Your task to perform on an android device: Add "bose soundlink" to the cart on bestbuy, then select checkout. Image 0: 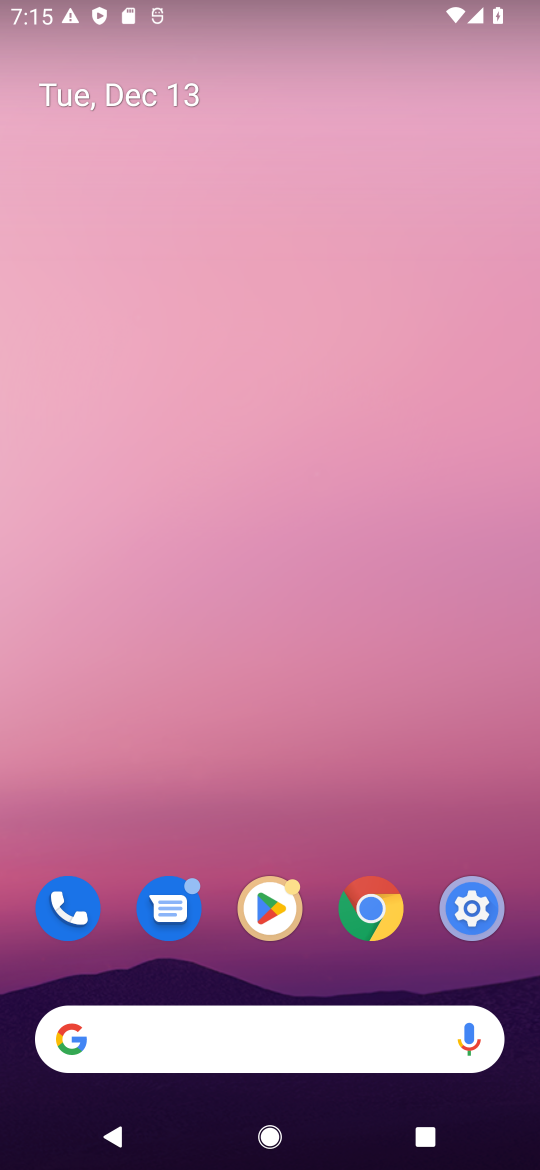
Step 0: press home button
Your task to perform on an android device: Add "bose soundlink" to the cart on bestbuy, then select checkout. Image 1: 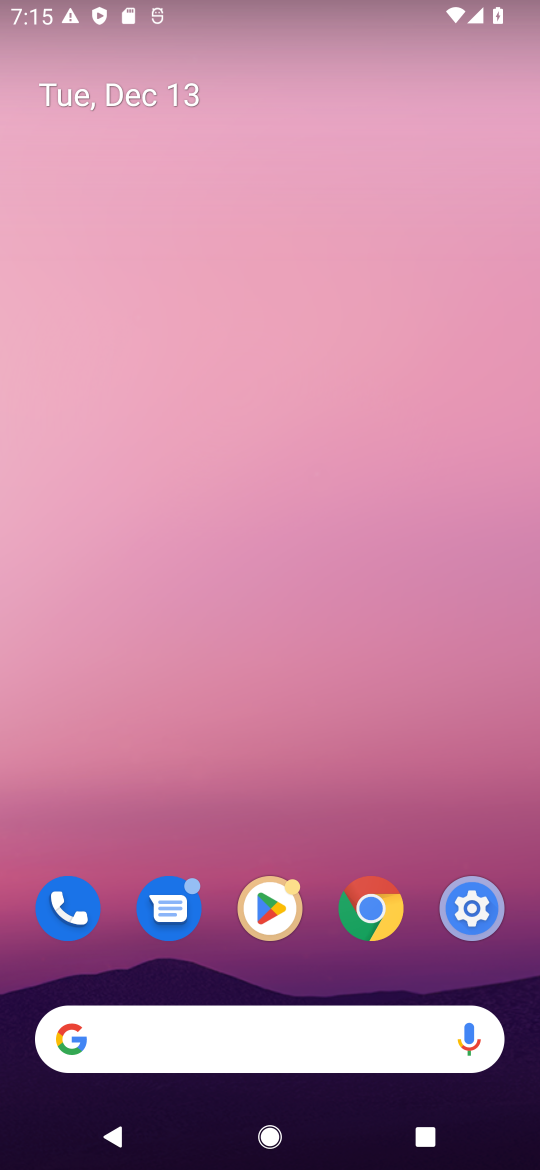
Step 1: click (117, 1031)
Your task to perform on an android device: Add "bose soundlink" to the cart on bestbuy, then select checkout. Image 2: 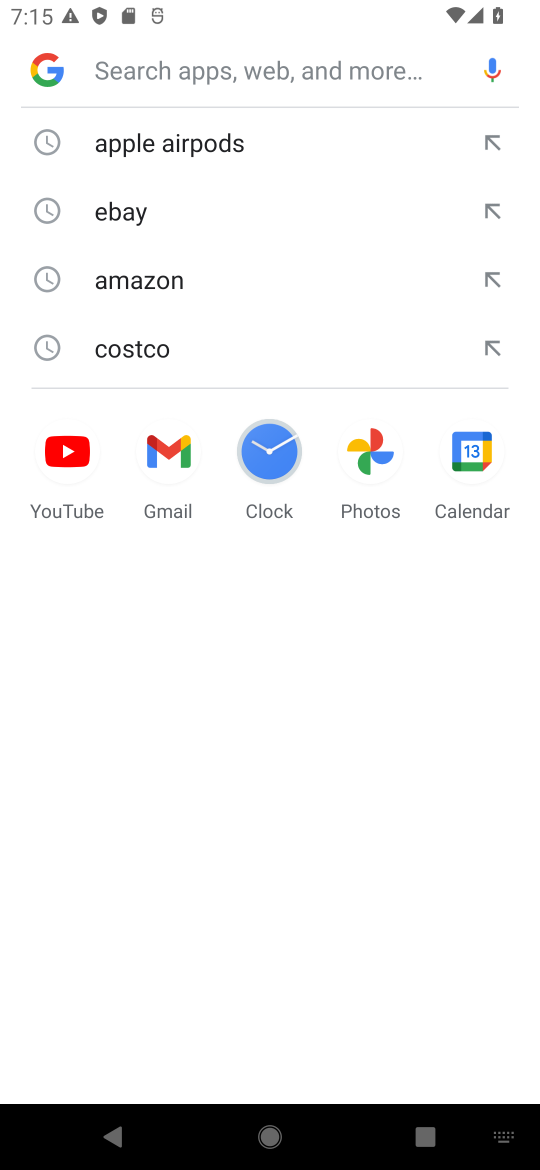
Step 2: type "bestbuy"
Your task to perform on an android device: Add "bose soundlink" to the cart on bestbuy, then select checkout. Image 3: 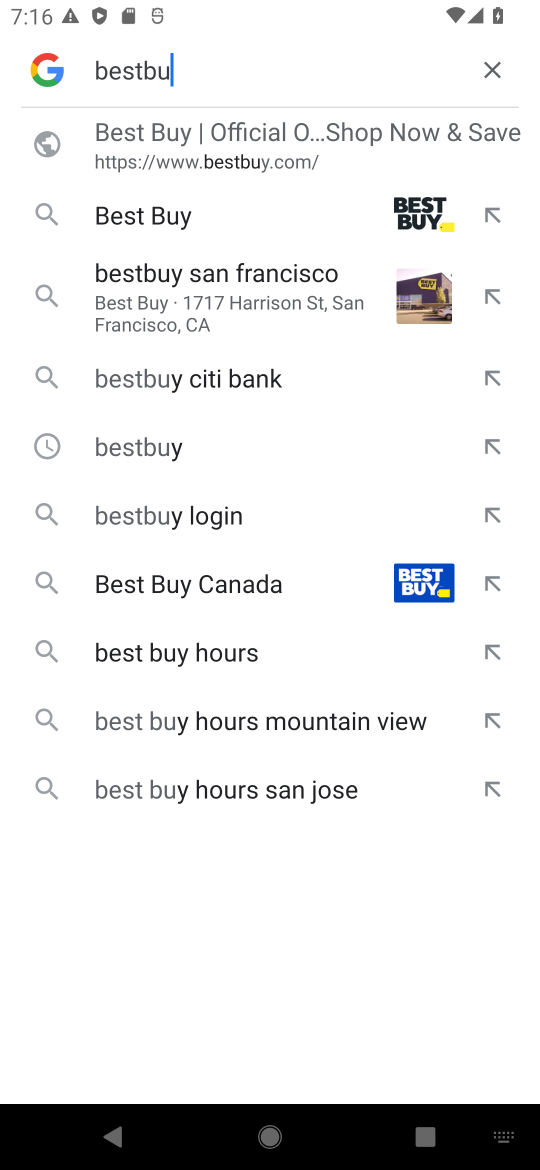
Step 3: press enter
Your task to perform on an android device: Add "bose soundlink" to the cart on bestbuy, then select checkout. Image 4: 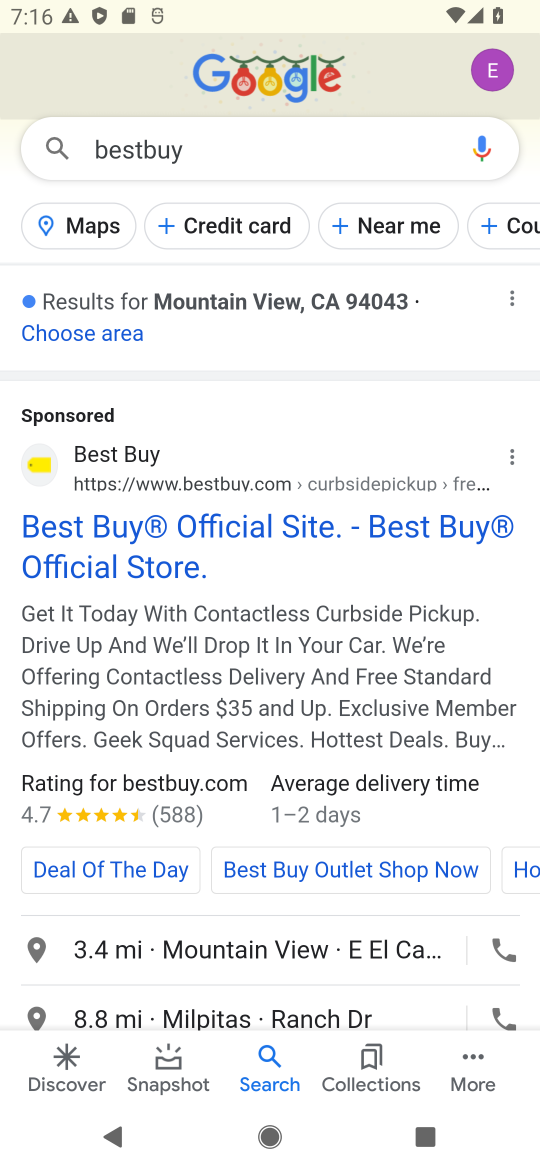
Step 4: click (163, 556)
Your task to perform on an android device: Add "bose soundlink" to the cart on bestbuy, then select checkout. Image 5: 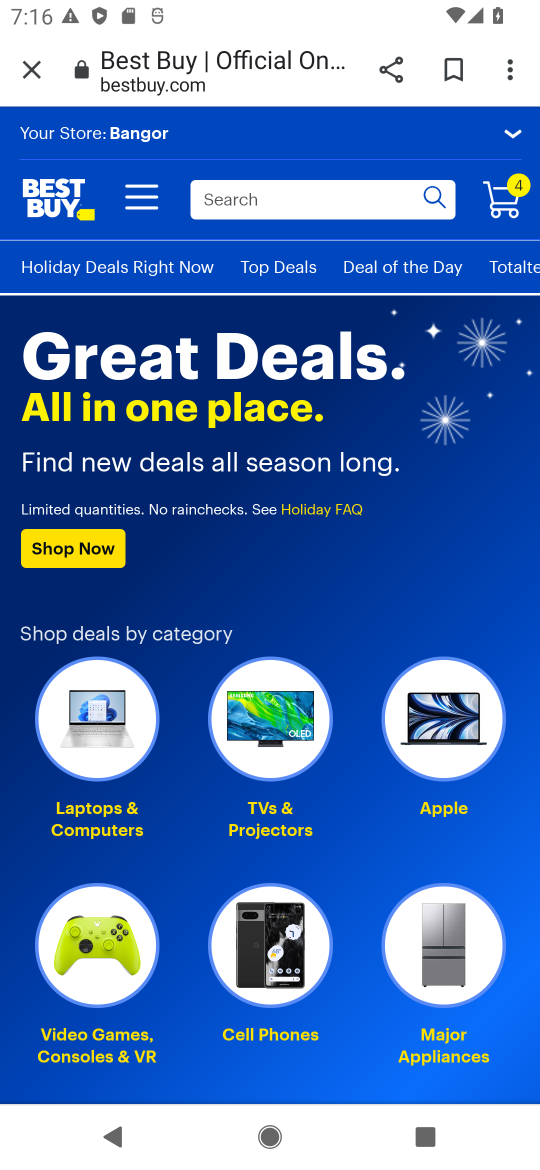
Step 5: click (276, 198)
Your task to perform on an android device: Add "bose soundlink" to the cart on bestbuy, then select checkout. Image 6: 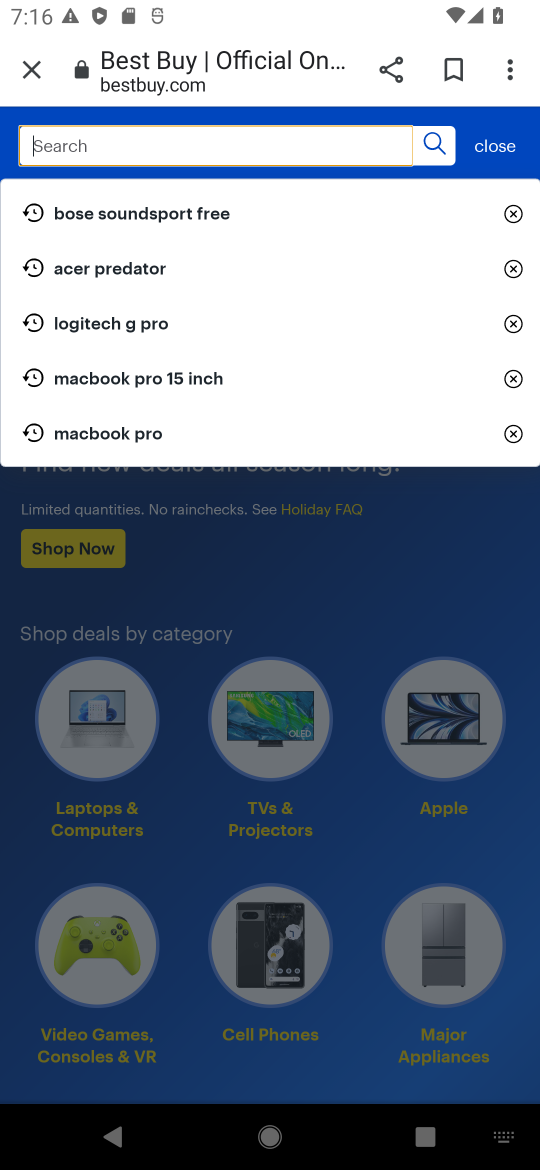
Step 6: type "bose soundlink"
Your task to perform on an android device: Add "bose soundlink" to the cart on bestbuy, then select checkout. Image 7: 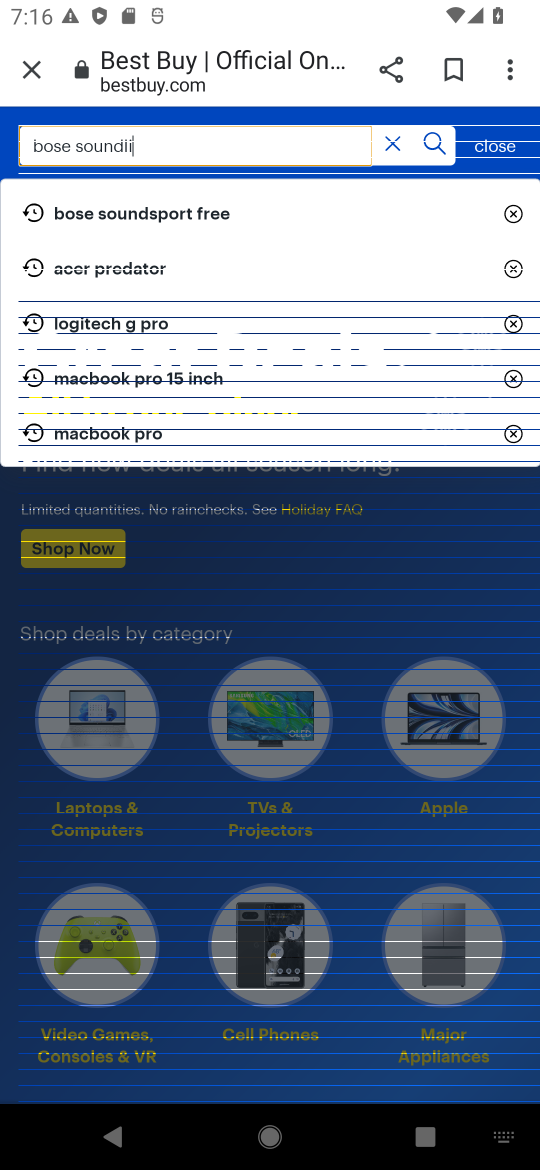
Step 7: press enter
Your task to perform on an android device: Add "bose soundlink" to the cart on bestbuy, then select checkout. Image 8: 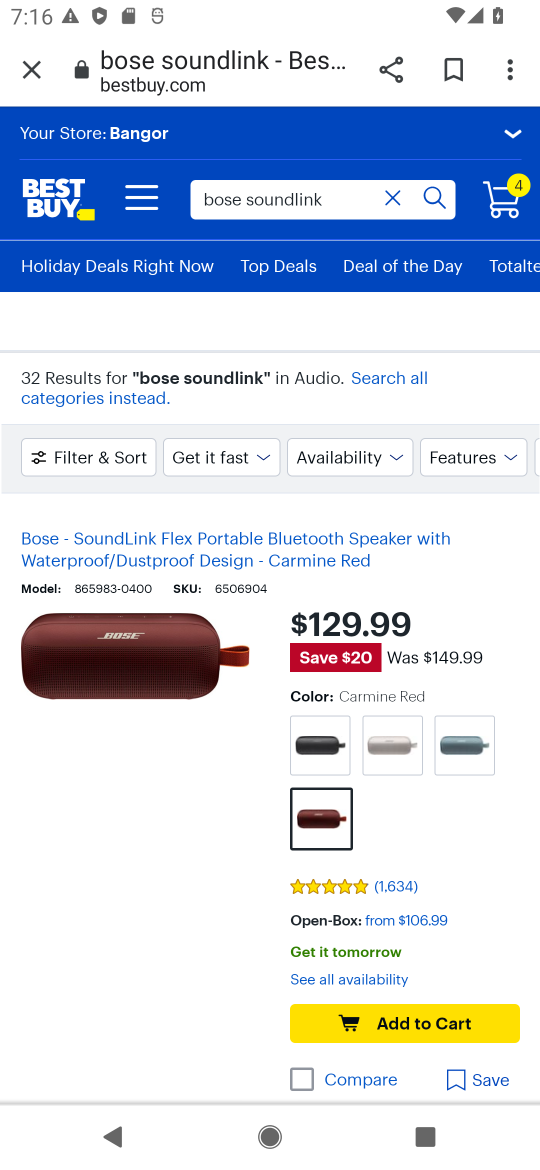
Step 8: click (375, 1023)
Your task to perform on an android device: Add "bose soundlink" to the cart on bestbuy, then select checkout. Image 9: 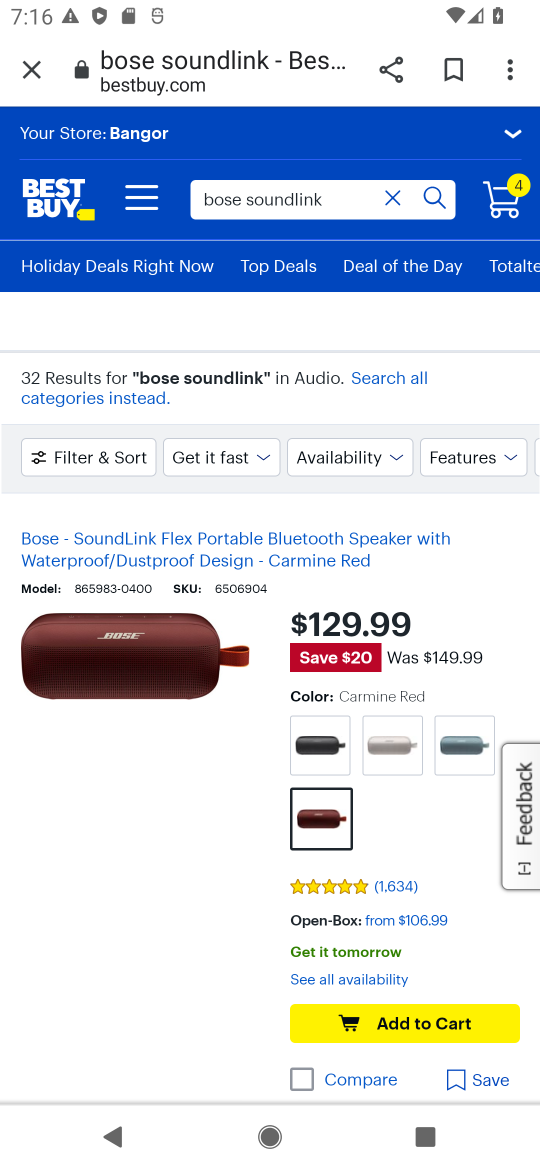
Step 9: click (496, 202)
Your task to perform on an android device: Add "bose soundlink" to the cart on bestbuy, then select checkout. Image 10: 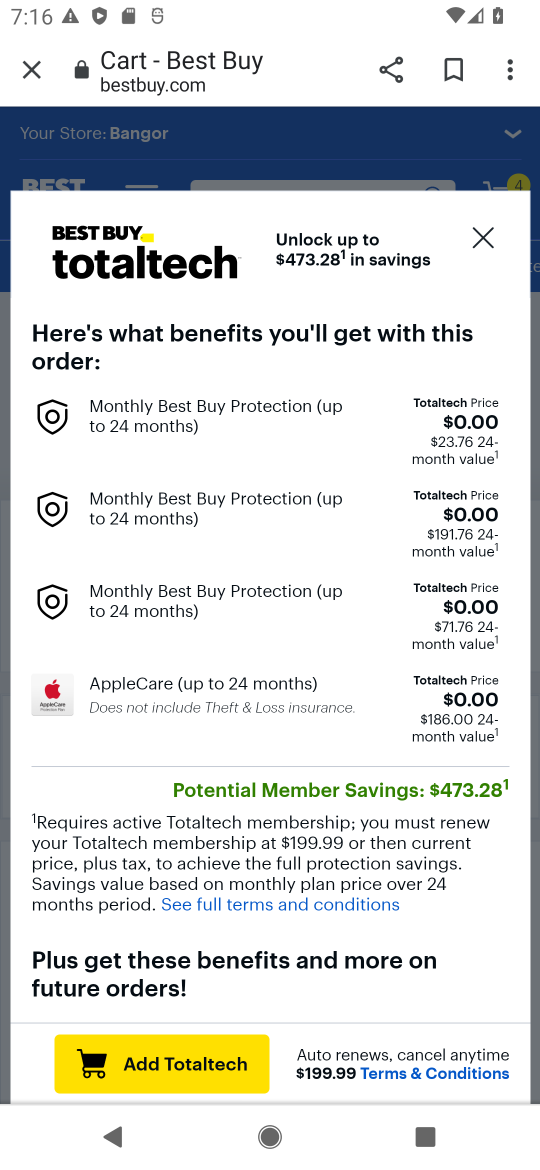
Step 10: click (483, 232)
Your task to perform on an android device: Add "bose soundlink" to the cart on bestbuy, then select checkout. Image 11: 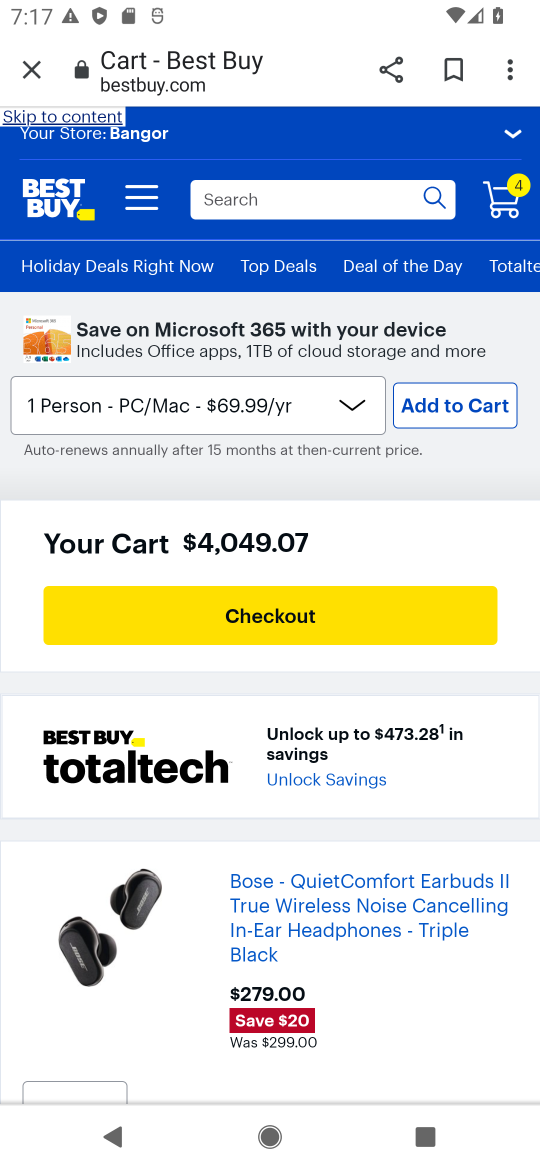
Step 11: click (269, 605)
Your task to perform on an android device: Add "bose soundlink" to the cart on bestbuy, then select checkout. Image 12: 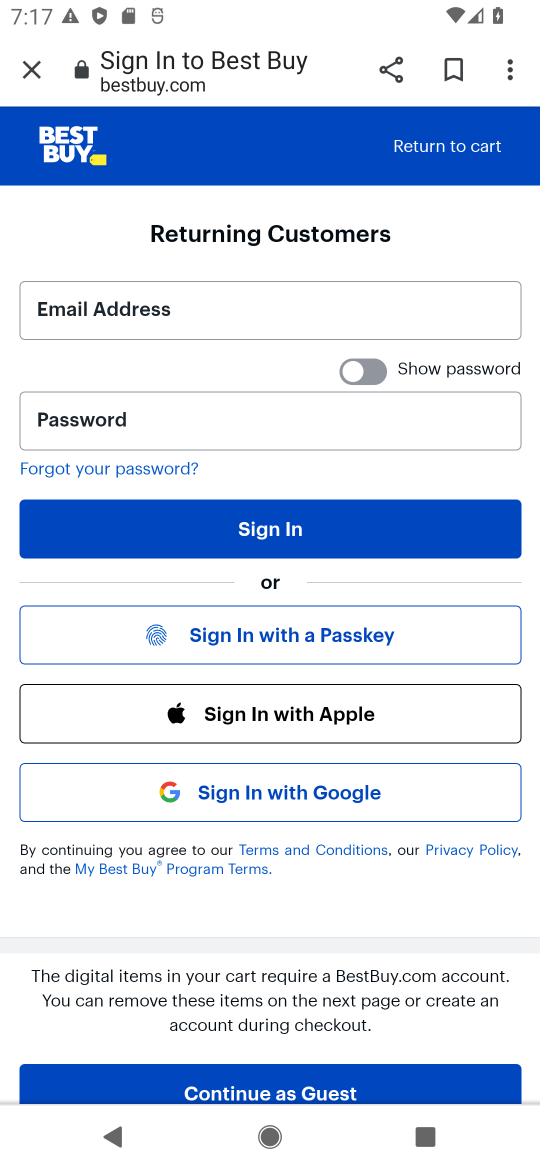
Step 12: task complete